Your task to perform on an android device: open sync settings in chrome Image 0: 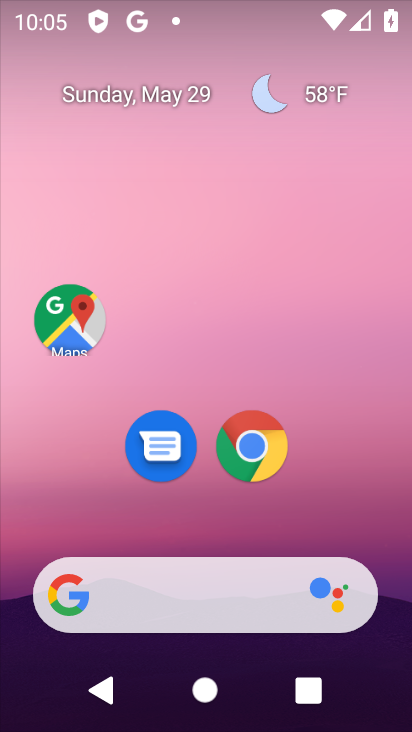
Step 0: drag from (359, 522) to (211, 13)
Your task to perform on an android device: open sync settings in chrome Image 1: 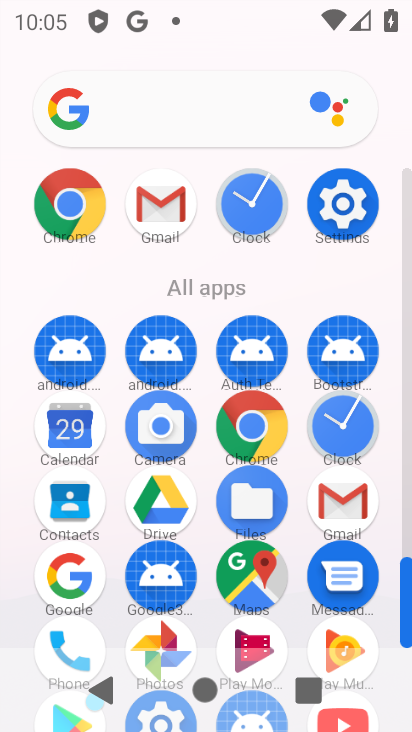
Step 1: click (73, 197)
Your task to perform on an android device: open sync settings in chrome Image 2: 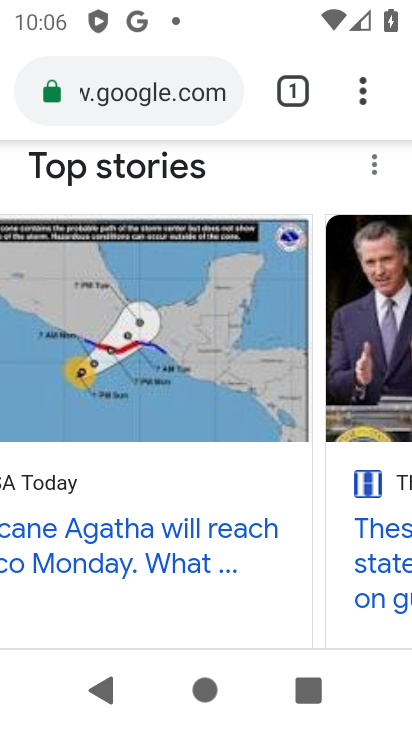
Step 2: drag from (363, 93) to (138, 470)
Your task to perform on an android device: open sync settings in chrome Image 3: 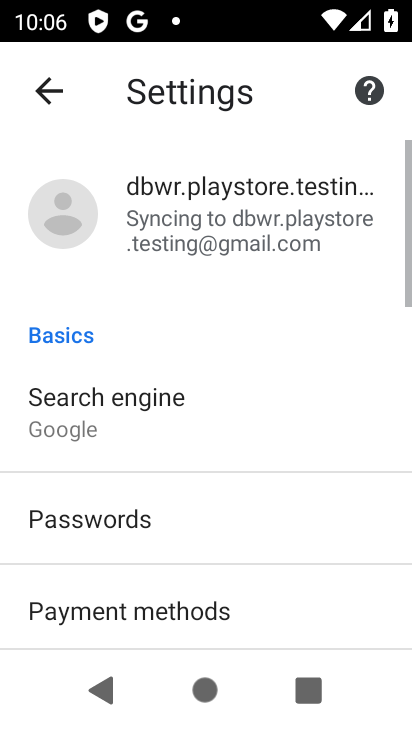
Step 3: click (232, 204)
Your task to perform on an android device: open sync settings in chrome Image 4: 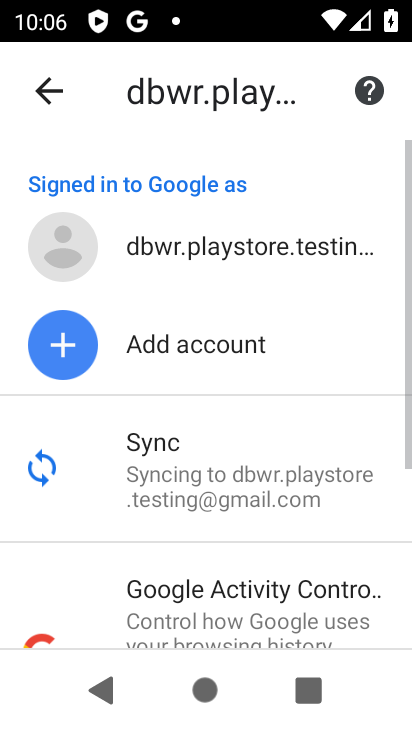
Step 4: click (180, 454)
Your task to perform on an android device: open sync settings in chrome Image 5: 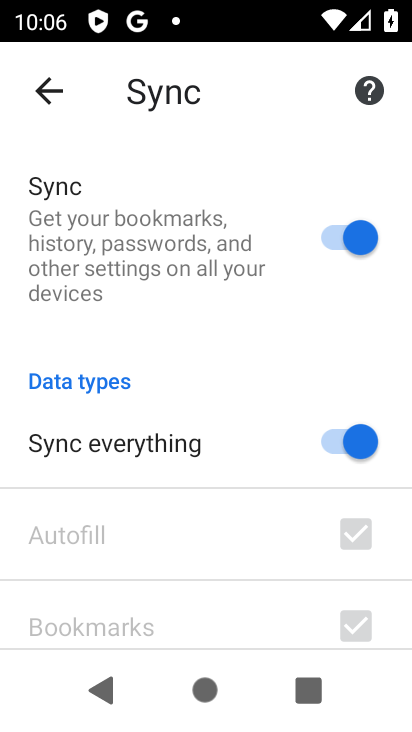
Step 5: task complete